Your task to perform on an android device: Go to Android settings Image 0: 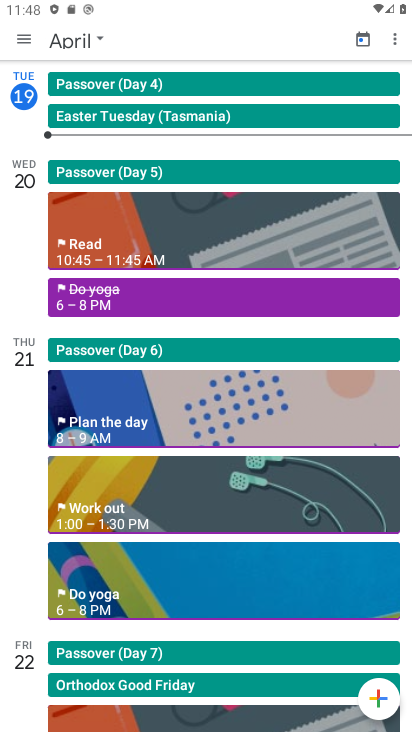
Step 0: press home button
Your task to perform on an android device: Go to Android settings Image 1: 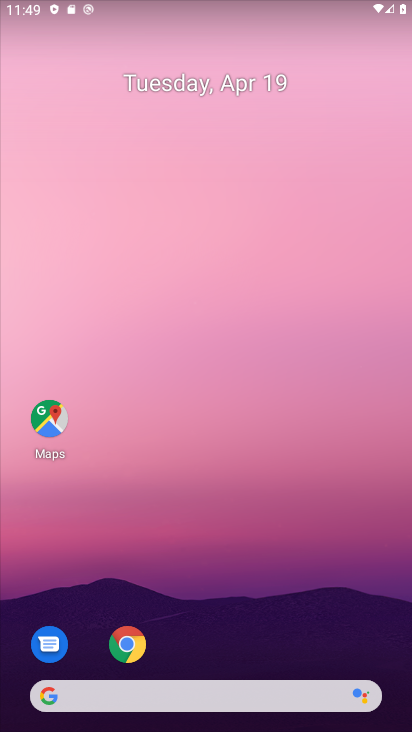
Step 1: drag from (241, 614) to (235, 172)
Your task to perform on an android device: Go to Android settings Image 2: 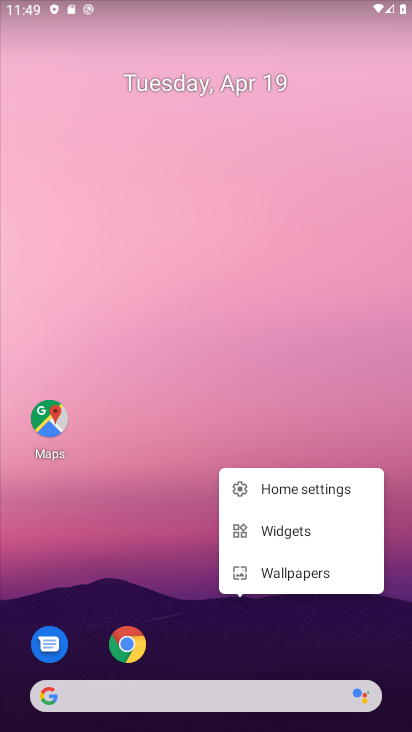
Step 2: drag from (158, 582) to (242, 25)
Your task to perform on an android device: Go to Android settings Image 3: 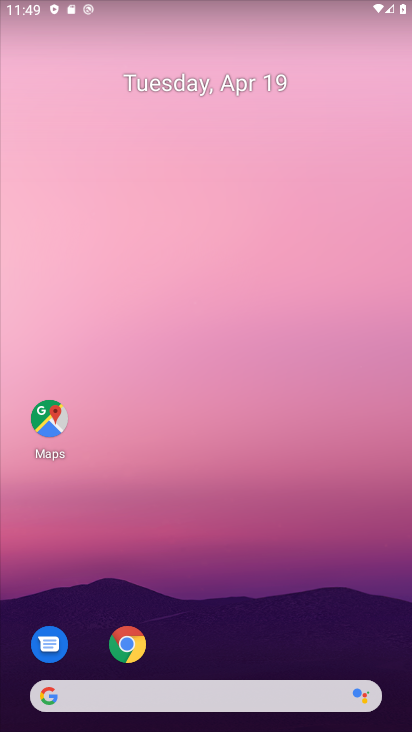
Step 3: drag from (217, 642) to (263, 29)
Your task to perform on an android device: Go to Android settings Image 4: 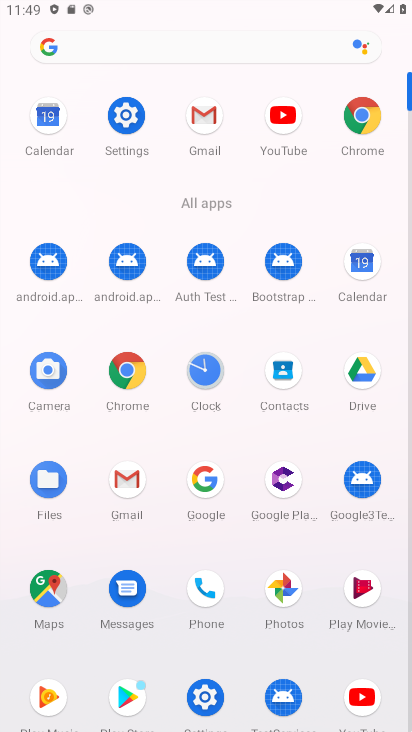
Step 4: click (130, 111)
Your task to perform on an android device: Go to Android settings Image 5: 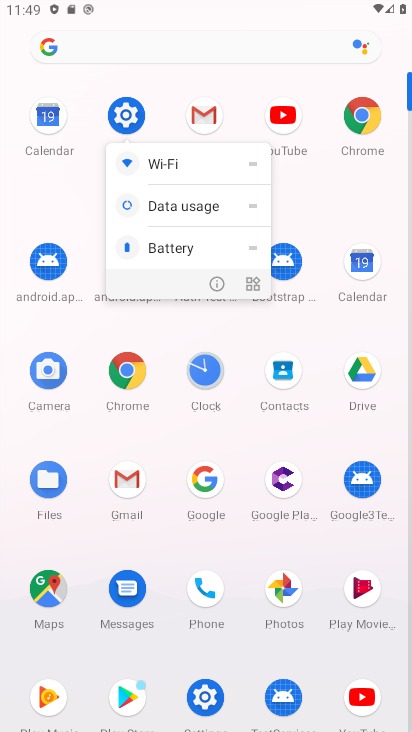
Step 5: click (130, 109)
Your task to perform on an android device: Go to Android settings Image 6: 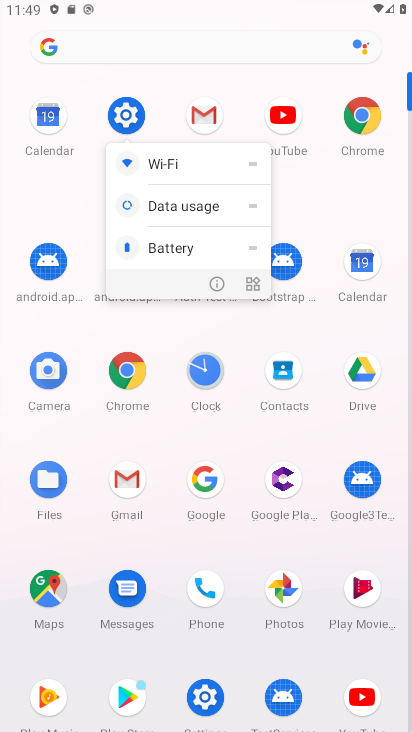
Step 6: click (132, 103)
Your task to perform on an android device: Go to Android settings Image 7: 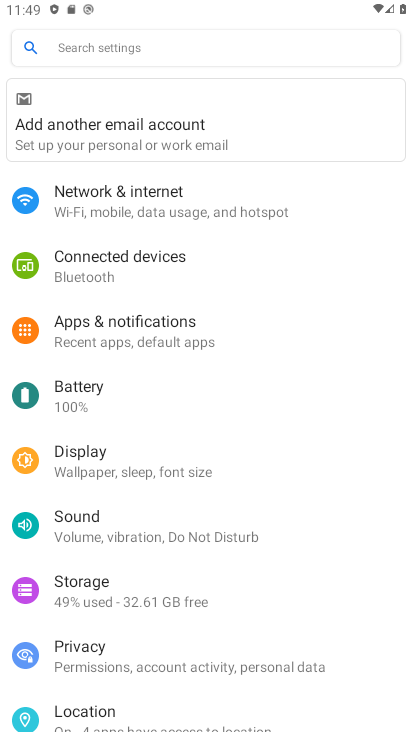
Step 7: task complete